Your task to perform on an android device: Do I have any events this weekend? Image 0: 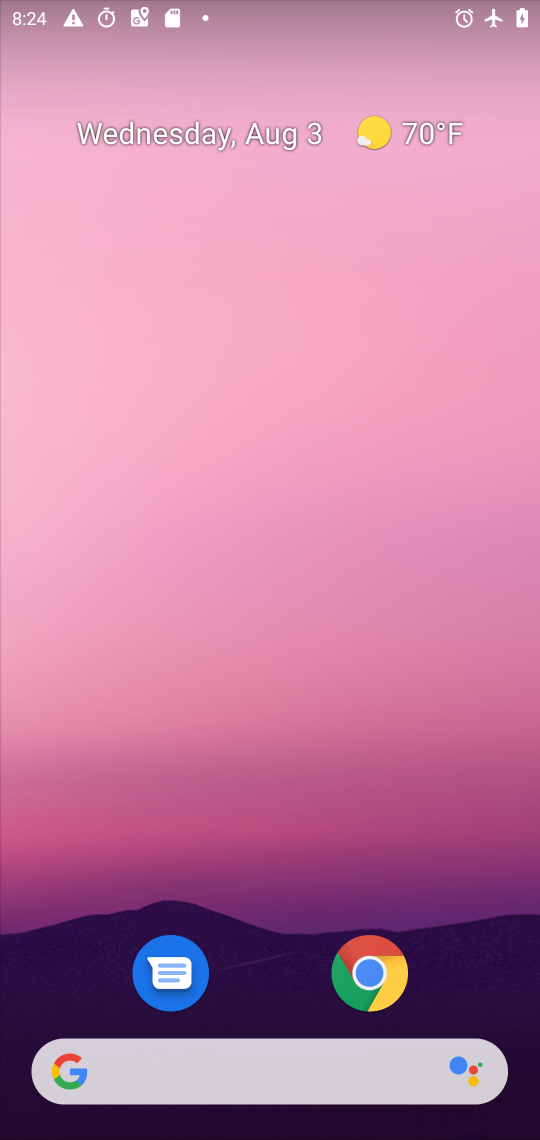
Step 0: press home button
Your task to perform on an android device: Do I have any events this weekend? Image 1: 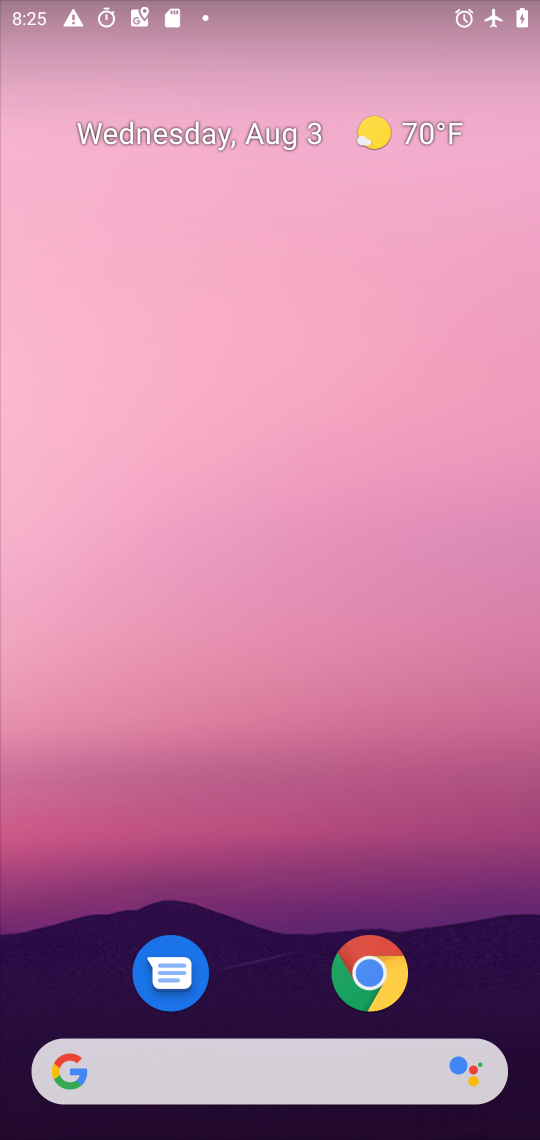
Step 1: drag from (279, 1007) to (281, 0)
Your task to perform on an android device: Do I have any events this weekend? Image 2: 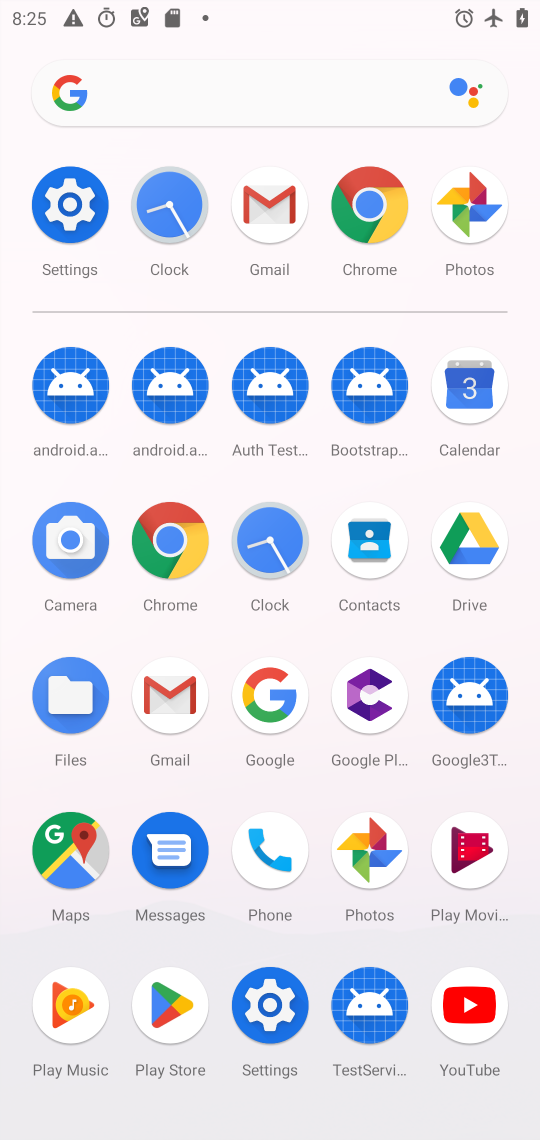
Step 2: click (473, 381)
Your task to perform on an android device: Do I have any events this weekend? Image 3: 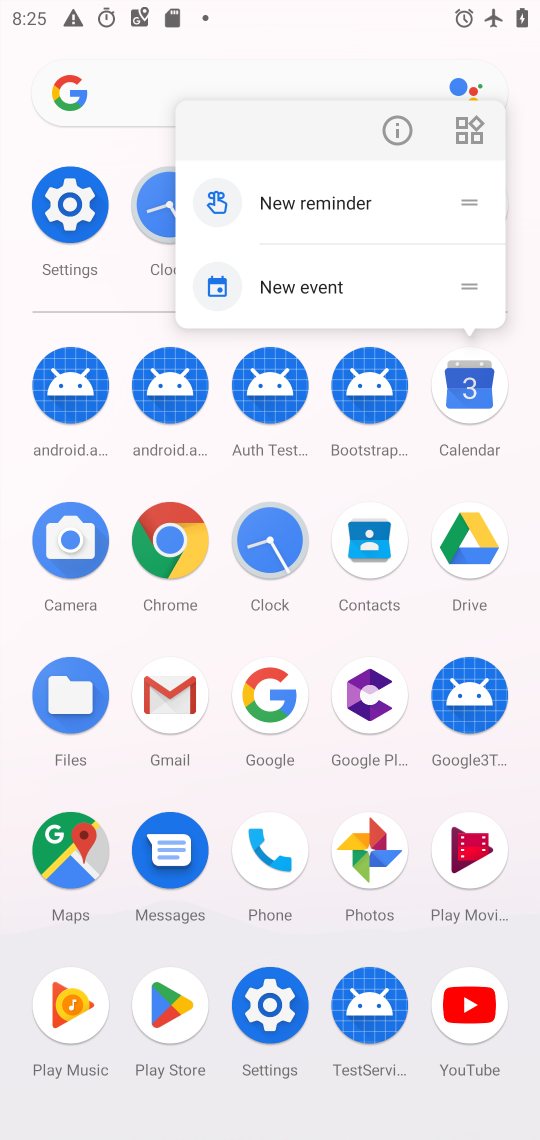
Step 3: click (472, 388)
Your task to perform on an android device: Do I have any events this weekend? Image 4: 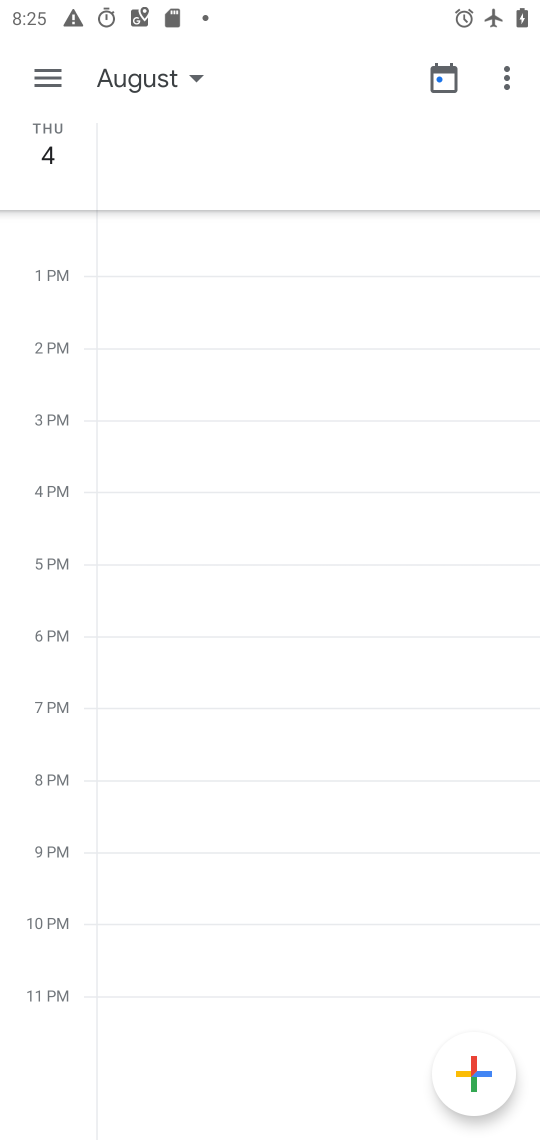
Step 4: click (42, 83)
Your task to perform on an android device: Do I have any events this weekend? Image 5: 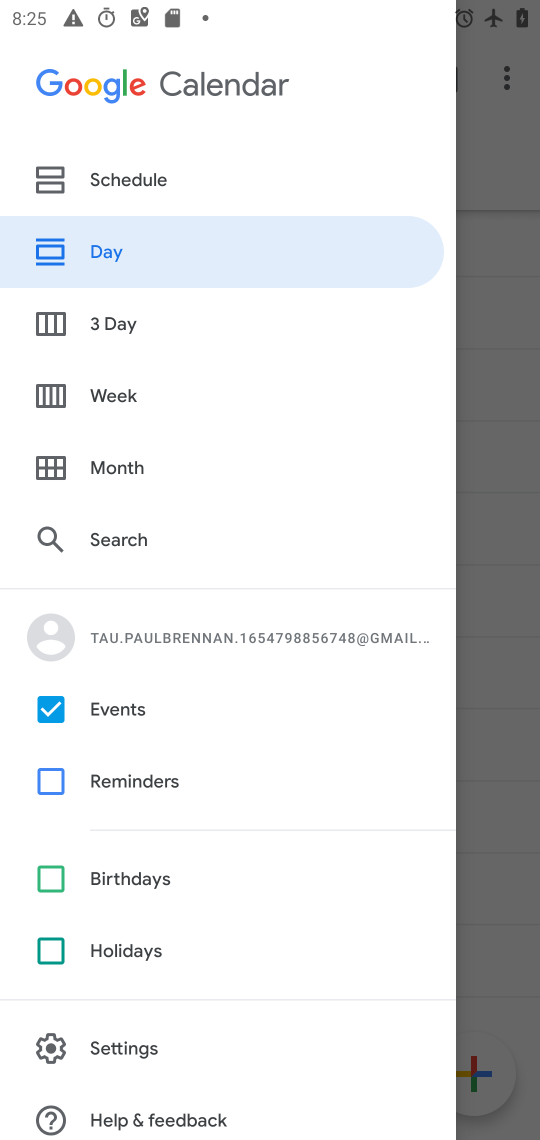
Step 5: click (78, 399)
Your task to perform on an android device: Do I have any events this weekend? Image 6: 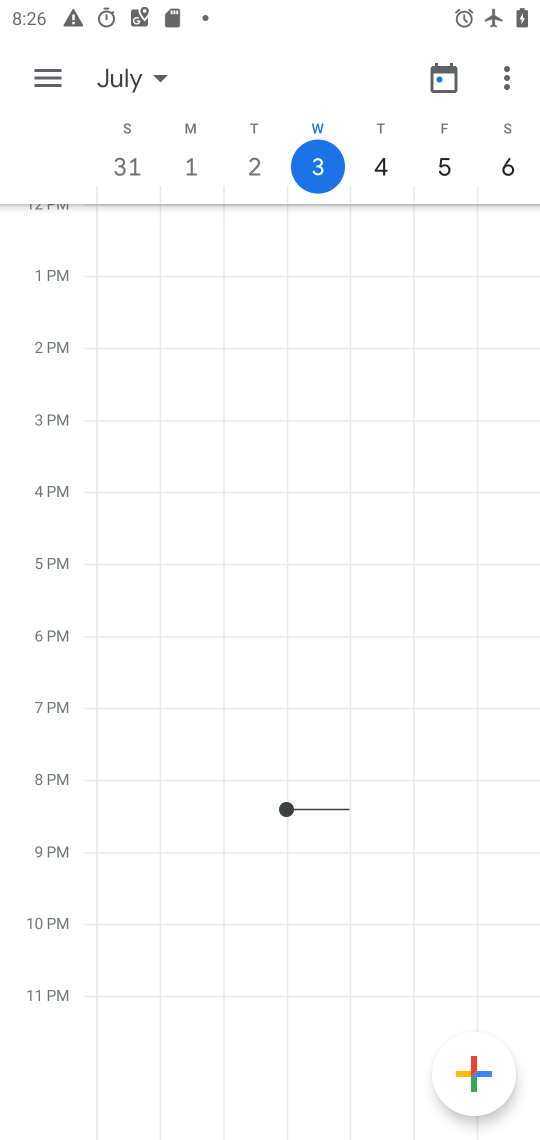
Step 6: task complete